Your task to perform on an android device: turn on airplane mode Image 0: 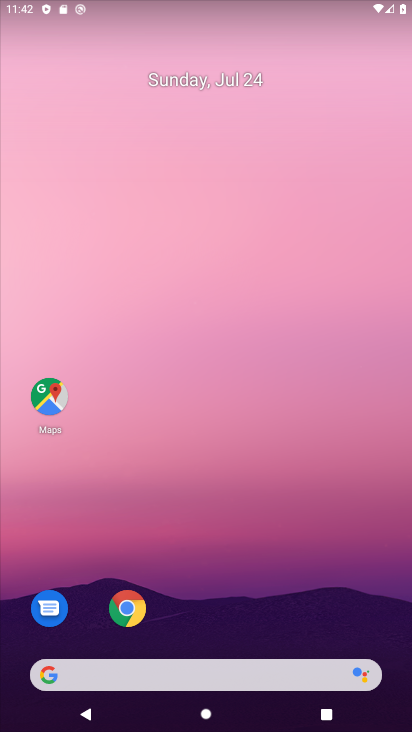
Step 0: drag from (225, 635) to (242, 174)
Your task to perform on an android device: turn on airplane mode Image 1: 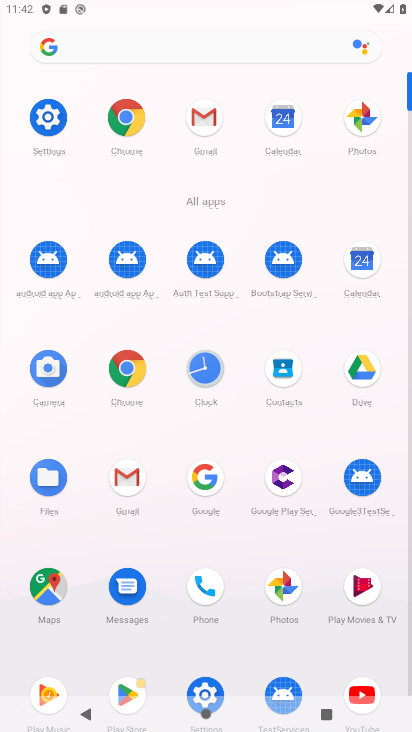
Step 1: drag from (275, 326) to (318, 23)
Your task to perform on an android device: turn on airplane mode Image 2: 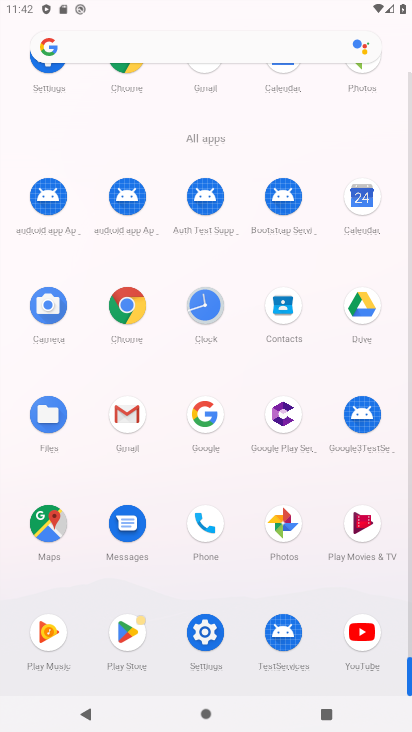
Step 2: click (211, 647)
Your task to perform on an android device: turn on airplane mode Image 3: 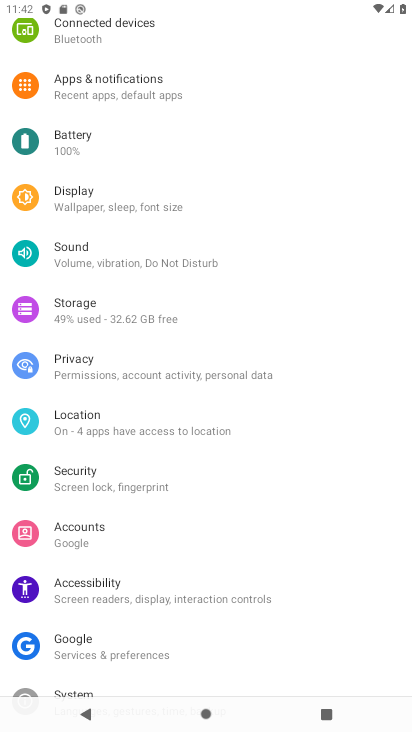
Step 3: drag from (209, 259) to (189, 726)
Your task to perform on an android device: turn on airplane mode Image 4: 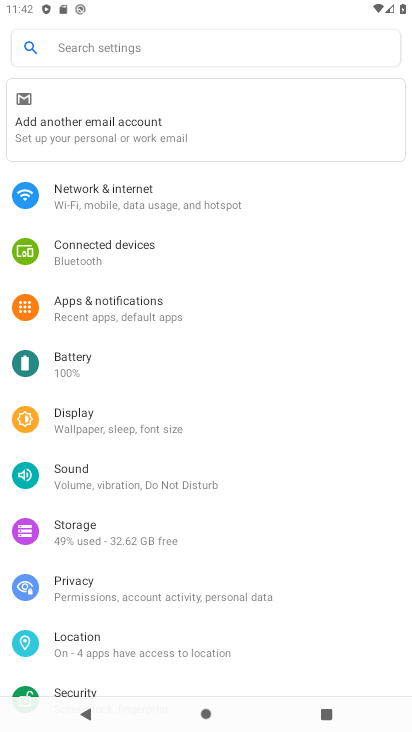
Step 4: click (137, 203)
Your task to perform on an android device: turn on airplane mode Image 5: 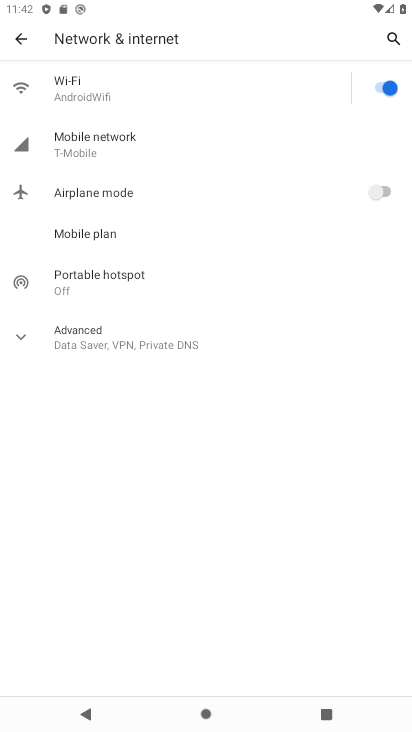
Step 5: click (159, 196)
Your task to perform on an android device: turn on airplane mode Image 6: 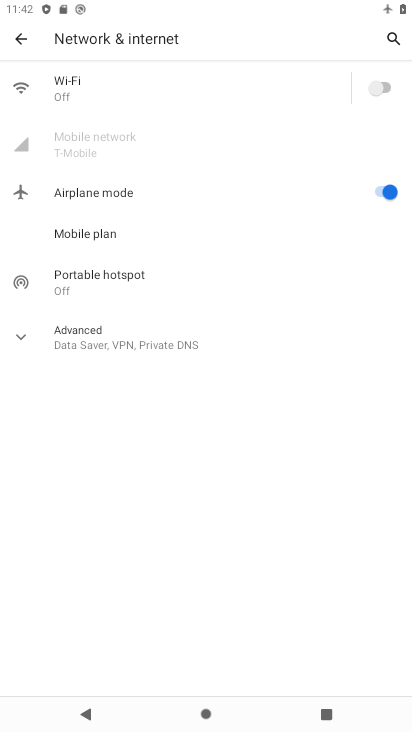
Step 6: task complete